Your task to perform on an android device: Open Google Image 0: 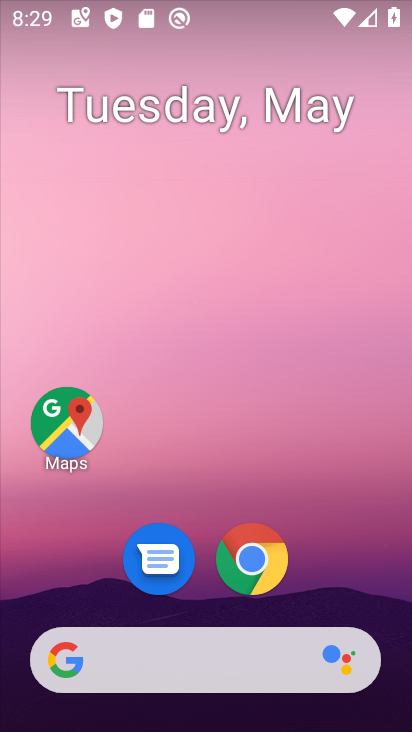
Step 0: drag from (203, 663) to (177, 339)
Your task to perform on an android device: Open Google Image 1: 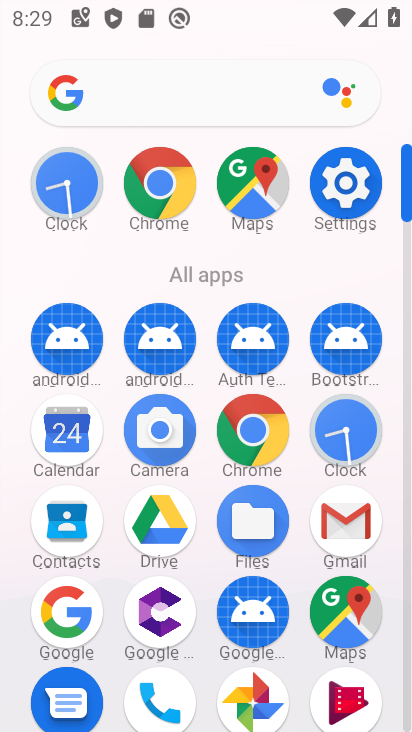
Step 1: click (71, 615)
Your task to perform on an android device: Open Google Image 2: 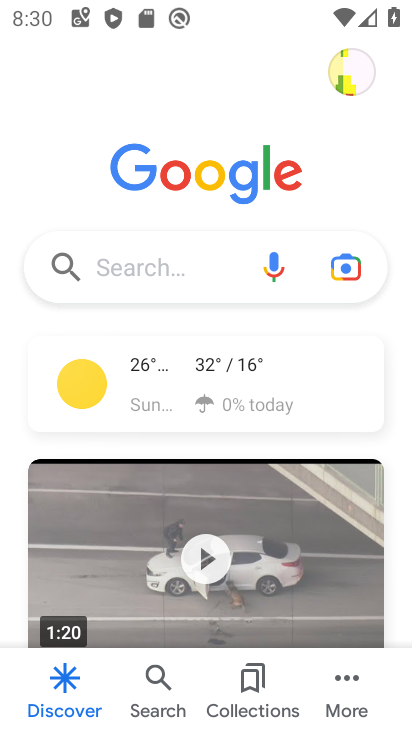
Step 2: task complete